Your task to perform on an android device: Show me productivity apps on the Play Store Image 0: 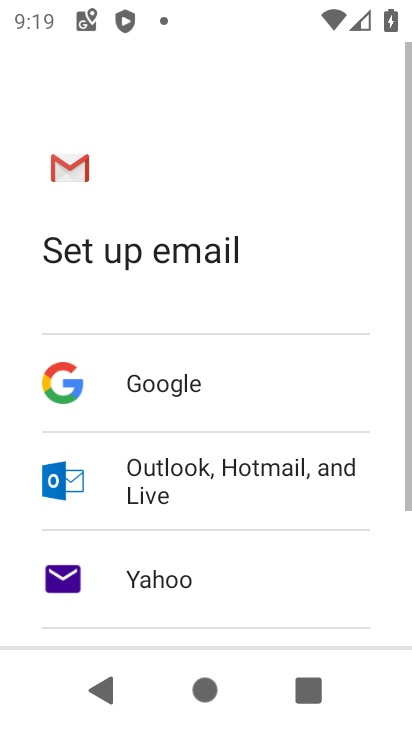
Step 0: press home button
Your task to perform on an android device: Show me productivity apps on the Play Store Image 1: 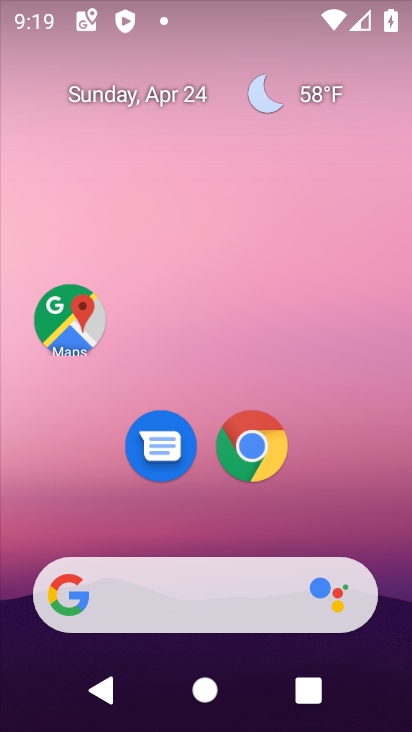
Step 1: drag from (276, 210) to (326, 11)
Your task to perform on an android device: Show me productivity apps on the Play Store Image 2: 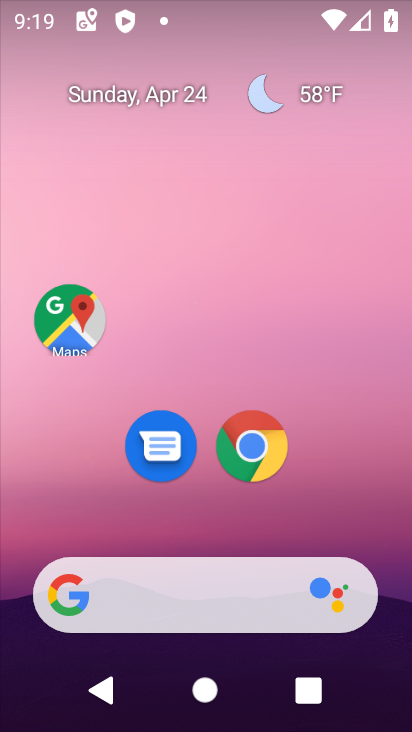
Step 2: drag from (159, 580) to (337, 53)
Your task to perform on an android device: Show me productivity apps on the Play Store Image 3: 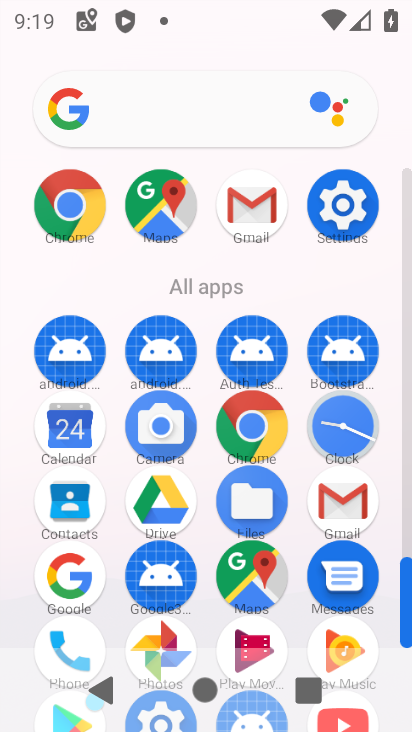
Step 3: drag from (121, 601) to (324, 71)
Your task to perform on an android device: Show me productivity apps on the Play Store Image 4: 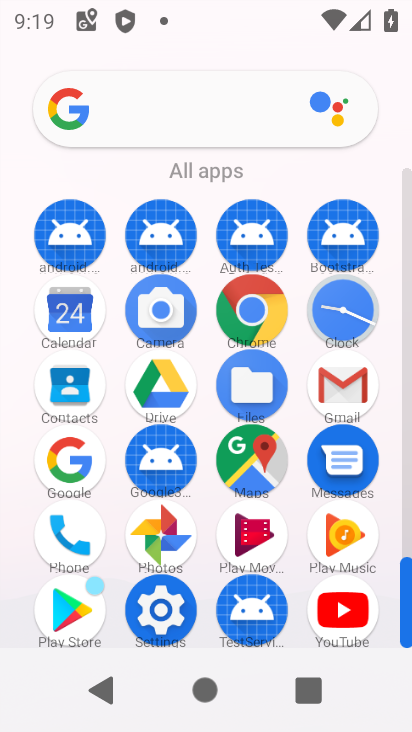
Step 4: click (71, 612)
Your task to perform on an android device: Show me productivity apps on the Play Store Image 5: 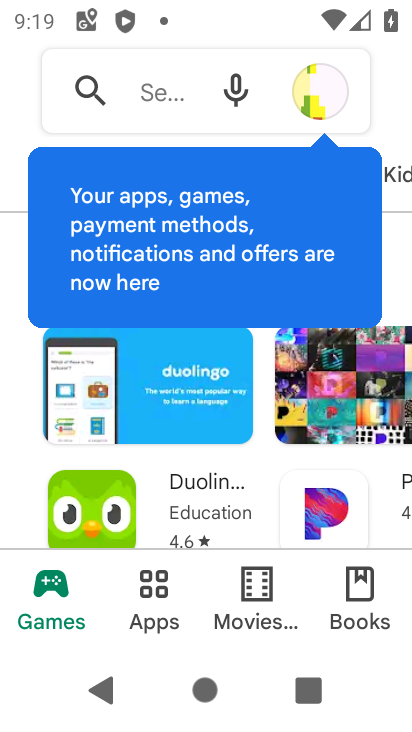
Step 5: click (160, 602)
Your task to perform on an android device: Show me productivity apps on the Play Store Image 6: 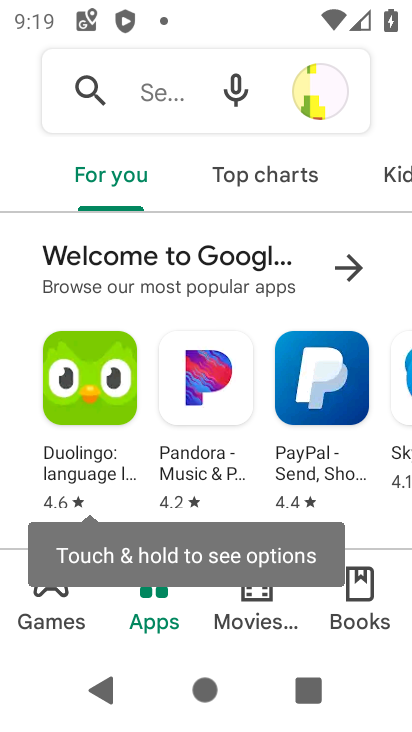
Step 6: drag from (349, 183) to (39, 186)
Your task to perform on an android device: Show me productivity apps on the Play Store Image 7: 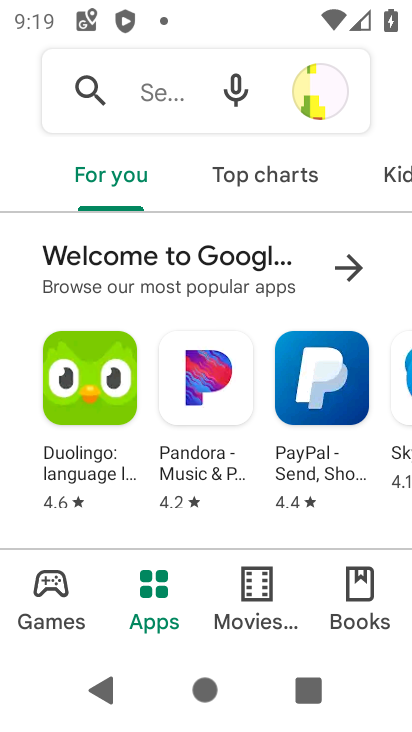
Step 7: drag from (389, 171) to (77, 183)
Your task to perform on an android device: Show me productivity apps on the Play Store Image 8: 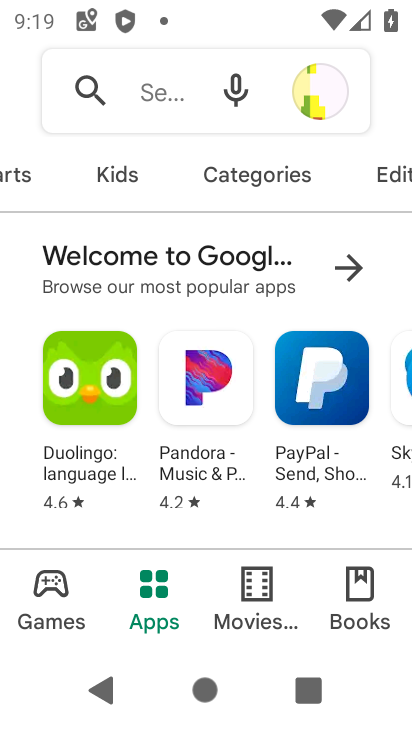
Step 8: click (246, 177)
Your task to perform on an android device: Show me productivity apps on the Play Store Image 9: 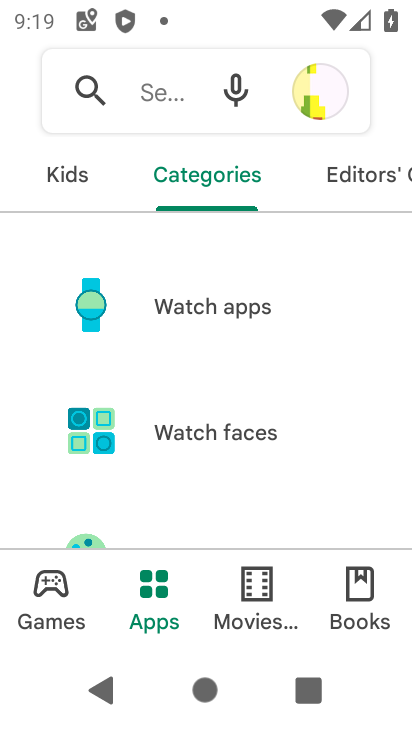
Step 9: drag from (190, 513) to (341, 125)
Your task to perform on an android device: Show me productivity apps on the Play Store Image 10: 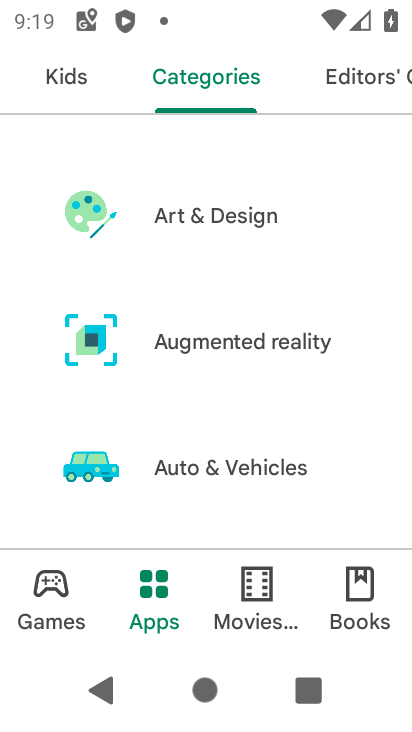
Step 10: drag from (215, 484) to (363, 59)
Your task to perform on an android device: Show me productivity apps on the Play Store Image 11: 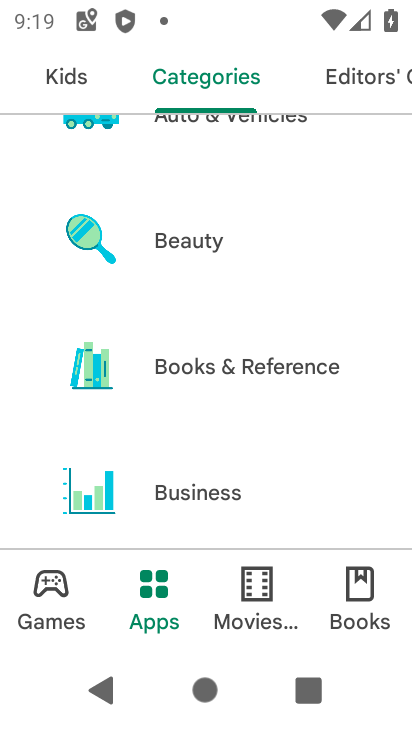
Step 11: drag from (188, 531) to (368, 58)
Your task to perform on an android device: Show me productivity apps on the Play Store Image 12: 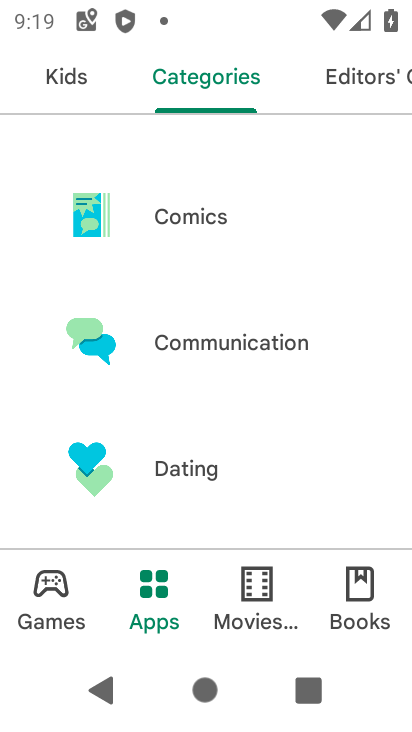
Step 12: drag from (219, 520) to (280, 133)
Your task to perform on an android device: Show me productivity apps on the Play Store Image 13: 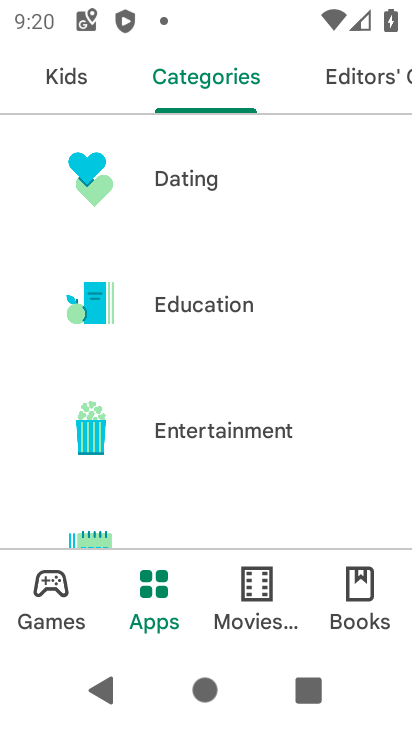
Step 13: drag from (201, 528) to (297, 97)
Your task to perform on an android device: Show me productivity apps on the Play Store Image 14: 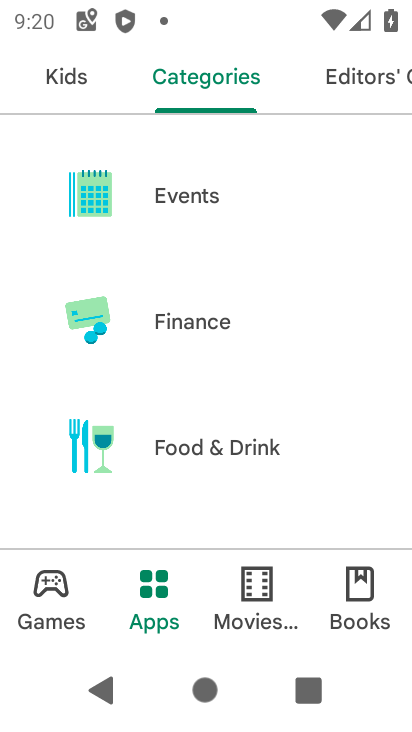
Step 14: drag from (194, 506) to (234, 137)
Your task to perform on an android device: Show me productivity apps on the Play Store Image 15: 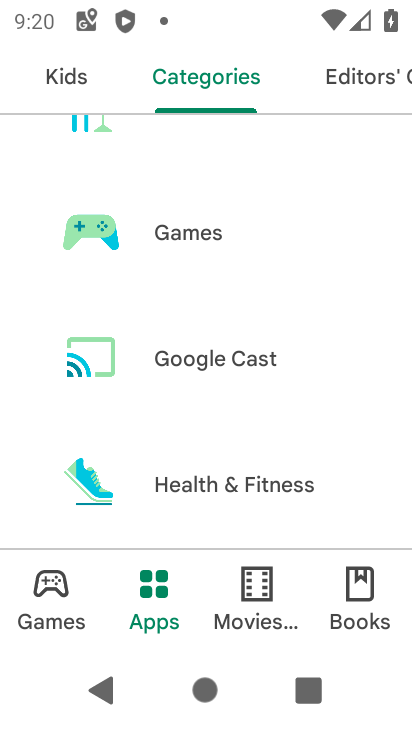
Step 15: drag from (231, 522) to (289, 136)
Your task to perform on an android device: Show me productivity apps on the Play Store Image 16: 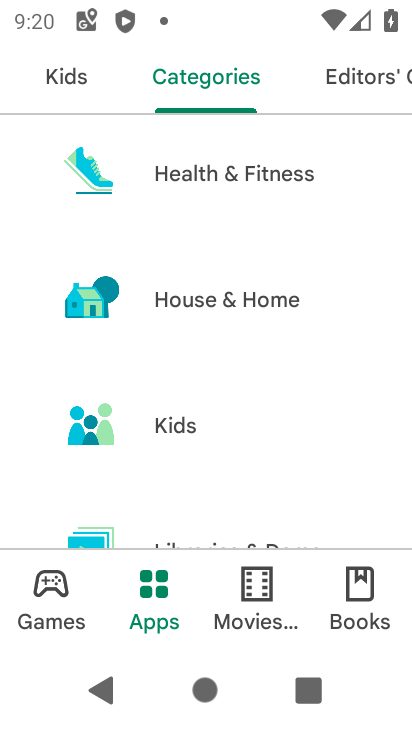
Step 16: drag from (233, 479) to (224, 120)
Your task to perform on an android device: Show me productivity apps on the Play Store Image 17: 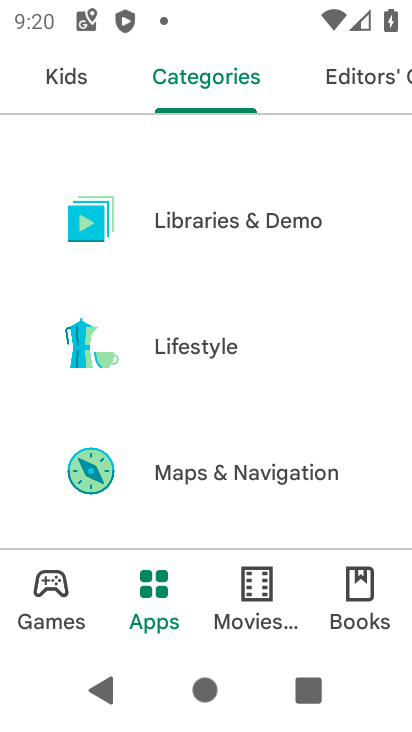
Step 17: drag from (216, 505) to (309, 94)
Your task to perform on an android device: Show me productivity apps on the Play Store Image 18: 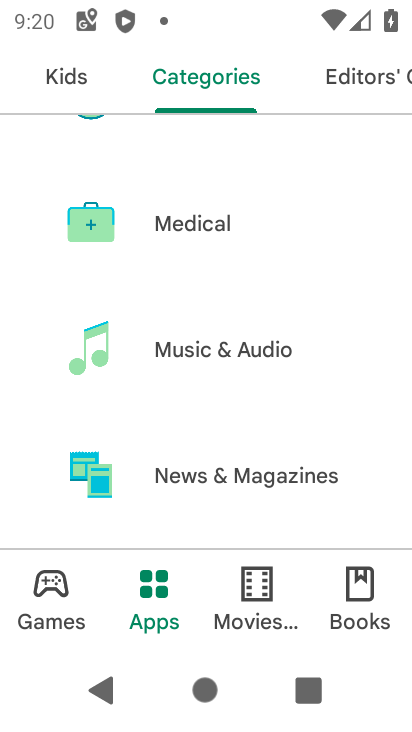
Step 18: drag from (220, 467) to (322, 160)
Your task to perform on an android device: Show me productivity apps on the Play Store Image 19: 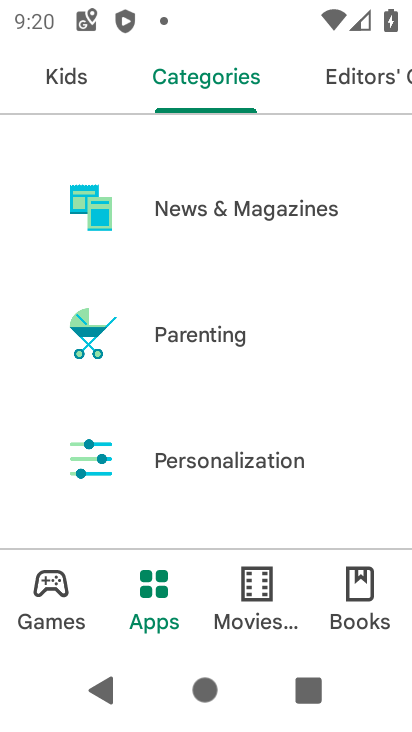
Step 19: drag from (223, 510) to (351, 84)
Your task to perform on an android device: Show me productivity apps on the Play Store Image 20: 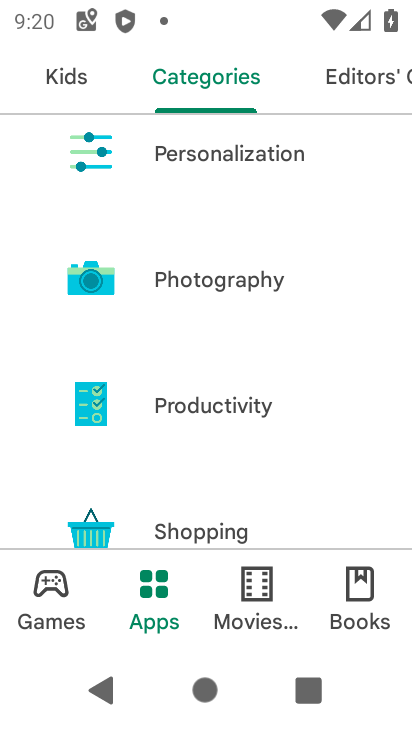
Step 20: click (225, 406)
Your task to perform on an android device: Show me productivity apps on the Play Store Image 21: 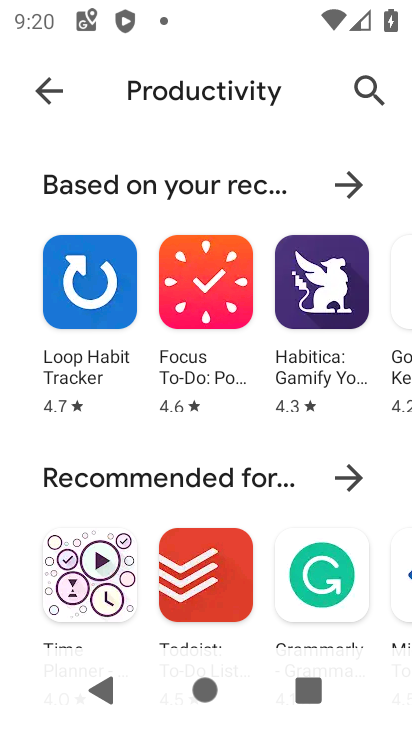
Step 21: task complete